Your task to perform on an android device: Open eBay Image 0: 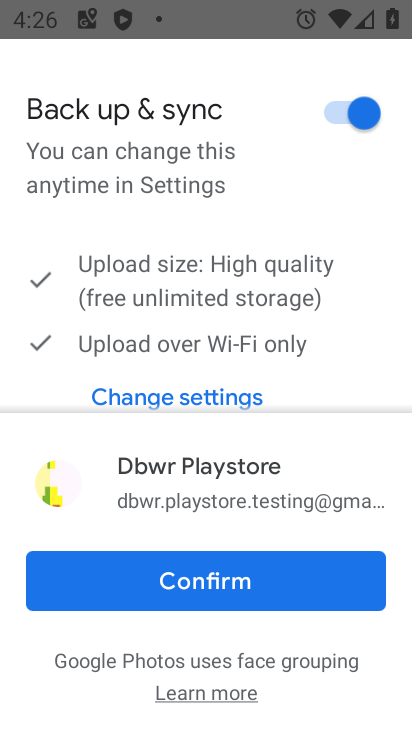
Step 0: press home button
Your task to perform on an android device: Open eBay Image 1: 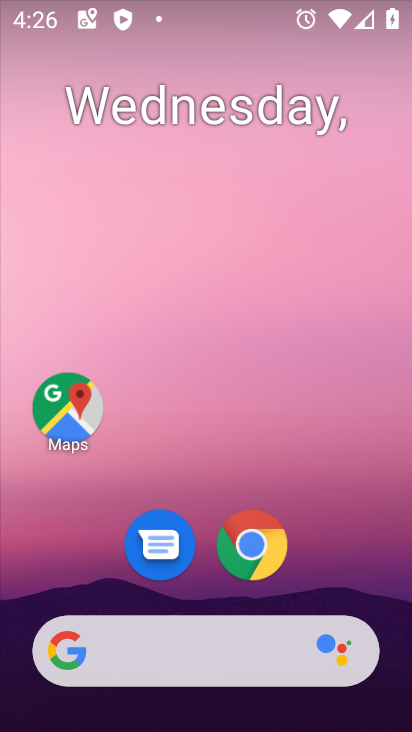
Step 1: drag from (348, 503) to (330, 208)
Your task to perform on an android device: Open eBay Image 2: 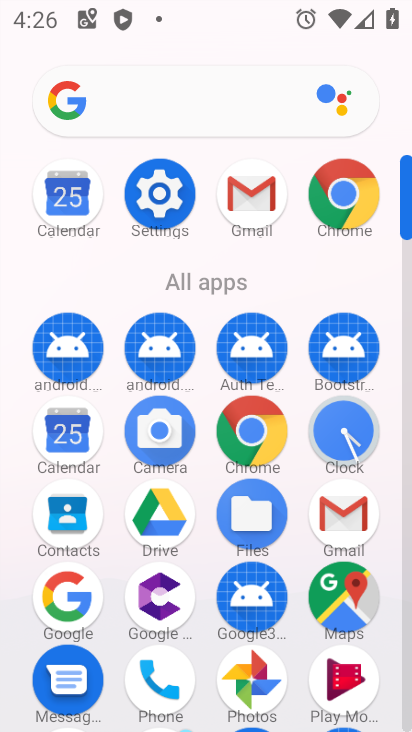
Step 2: click (271, 437)
Your task to perform on an android device: Open eBay Image 3: 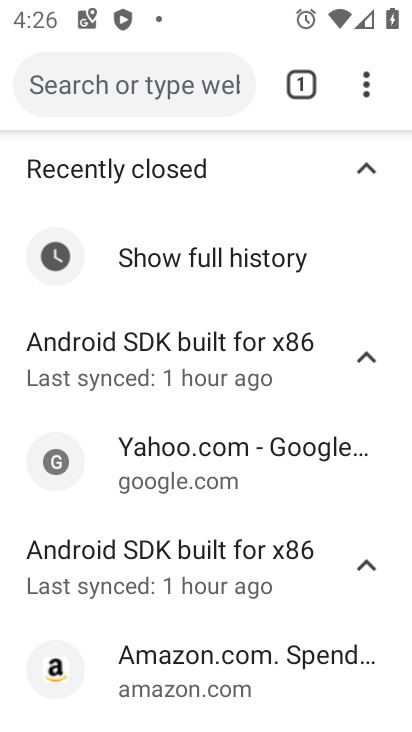
Step 3: click (200, 91)
Your task to perform on an android device: Open eBay Image 4: 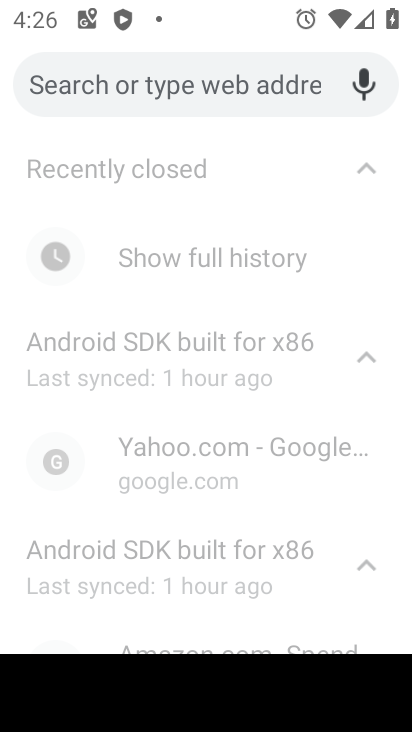
Step 4: type "ebay"
Your task to perform on an android device: Open eBay Image 5: 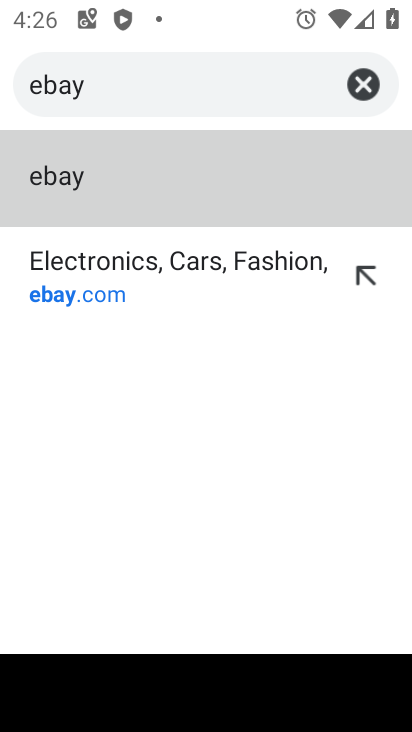
Step 5: click (149, 275)
Your task to perform on an android device: Open eBay Image 6: 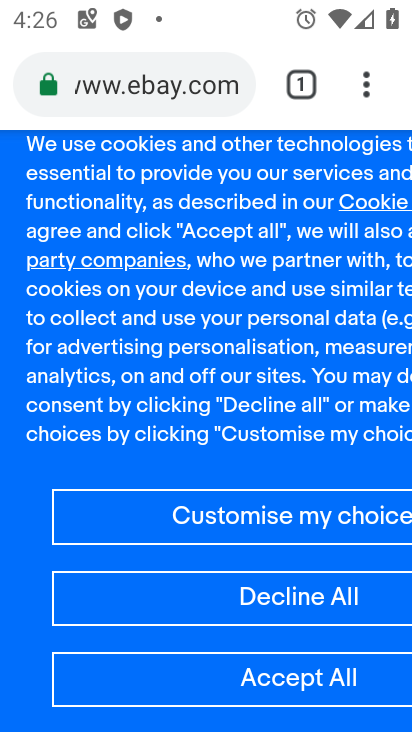
Step 6: task complete